Your task to perform on an android device: stop showing notifications on the lock screen Image 0: 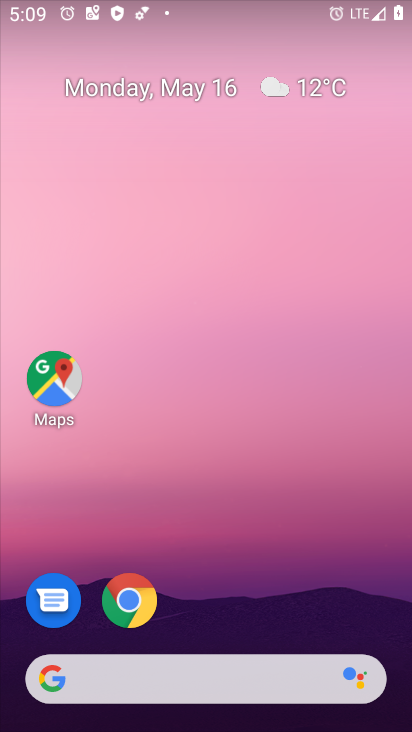
Step 0: drag from (188, 658) to (251, 205)
Your task to perform on an android device: stop showing notifications on the lock screen Image 1: 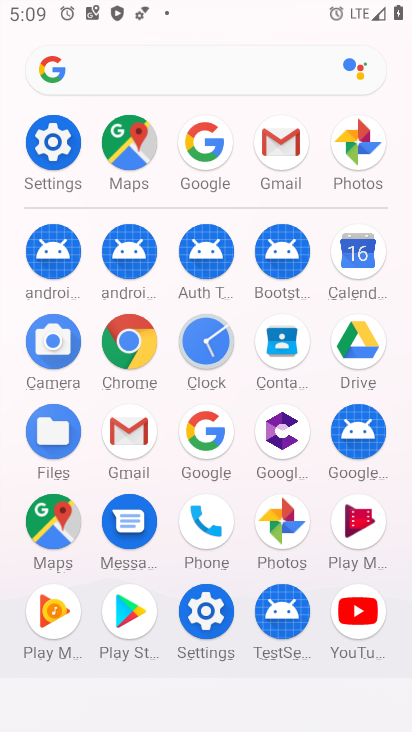
Step 1: click (207, 604)
Your task to perform on an android device: stop showing notifications on the lock screen Image 2: 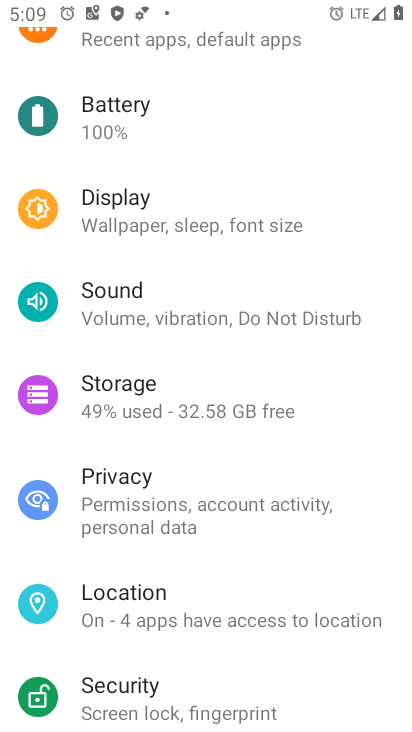
Step 2: drag from (200, 713) to (198, 275)
Your task to perform on an android device: stop showing notifications on the lock screen Image 3: 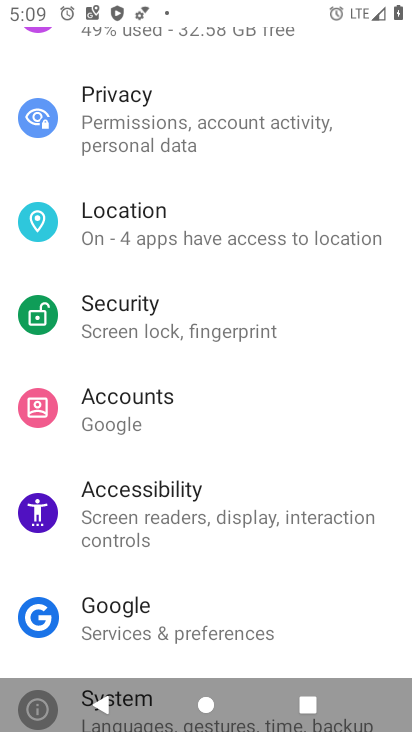
Step 3: click (147, 112)
Your task to perform on an android device: stop showing notifications on the lock screen Image 4: 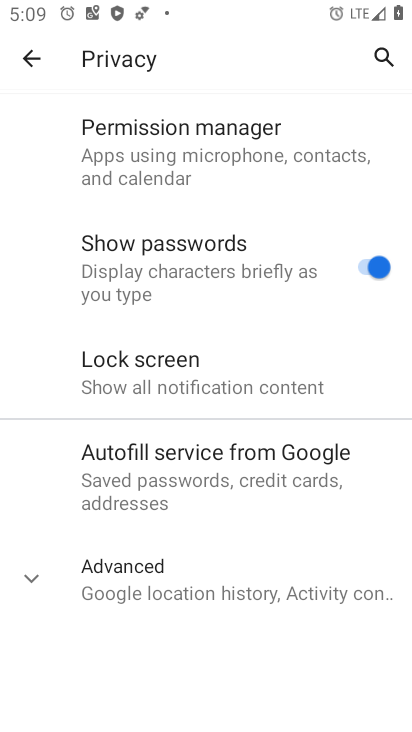
Step 4: click (113, 574)
Your task to perform on an android device: stop showing notifications on the lock screen Image 5: 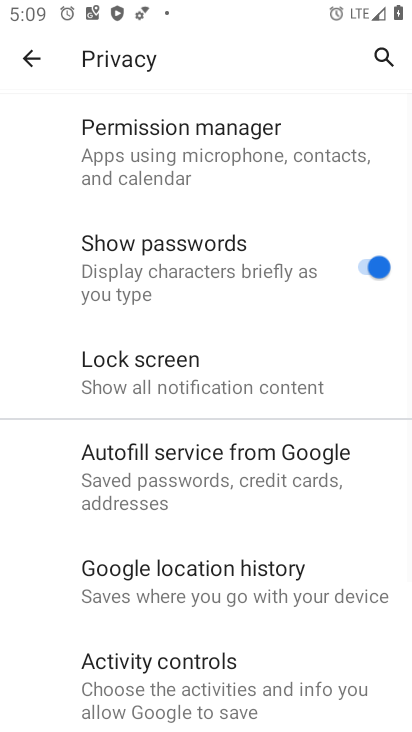
Step 5: click (153, 370)
Your task to perform on an android device: stop showing notifications on the lock screen Image 6: 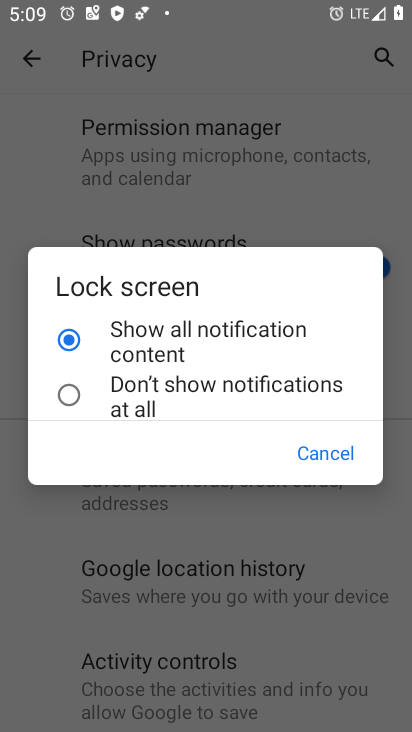
Step 6: click (326, 456)
Your task to perform on an android device: stop showing notifications on the lock screen Image 7: 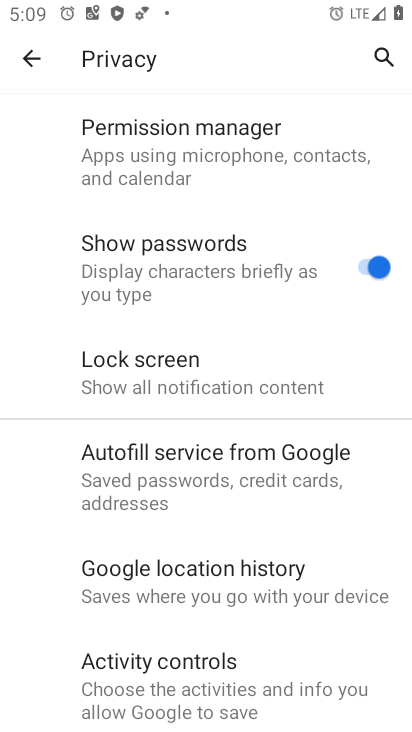
Step 7: task complete